Your task to perform on an android device: Search for the best rated desk chair on Article.com Image 0: 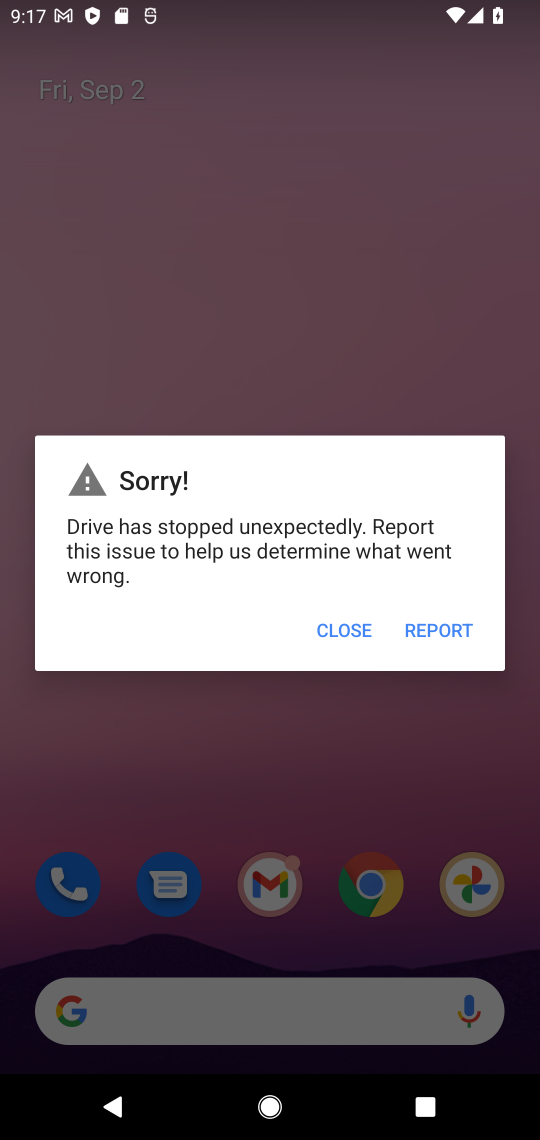
Step 0: press home button
Your task to perform on an android device: Search for the best rated desk chair on Article.com Image 1: 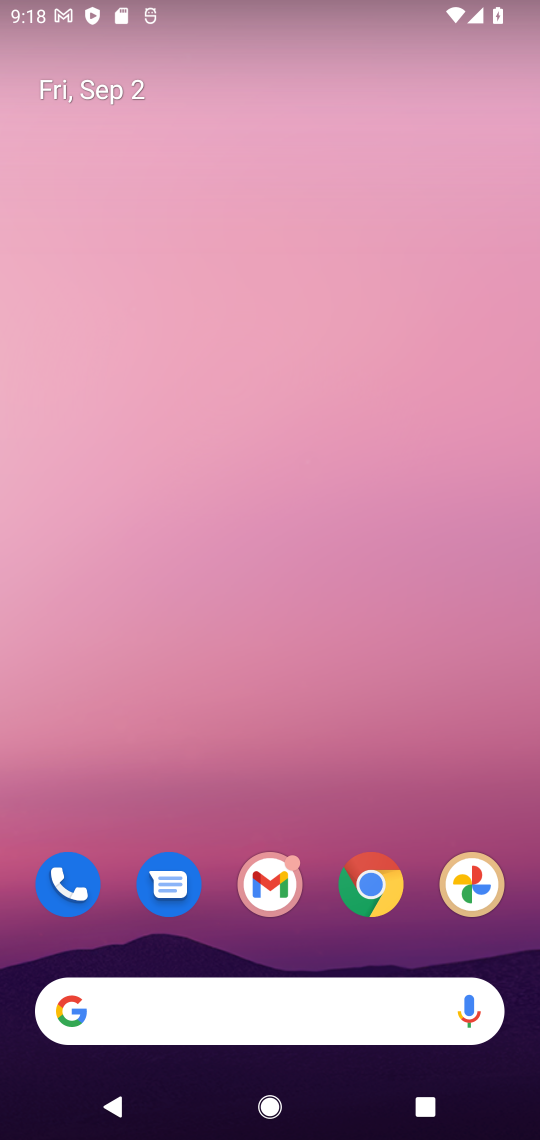
Step 1: click (382, 887)
Your task to perform on an android device: Search for the best rated desk chair on Article.com Image 2: 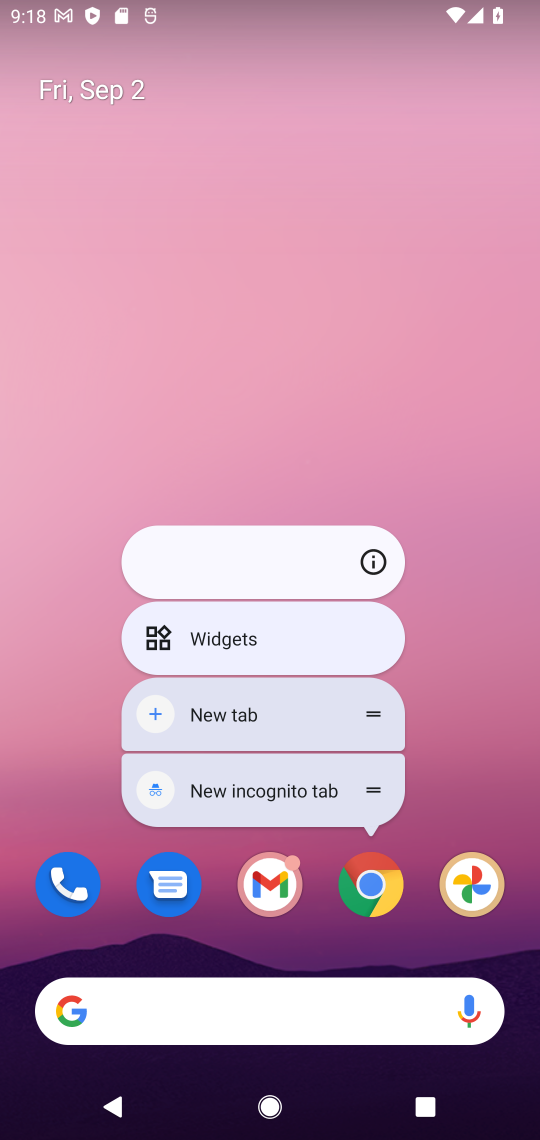
Step 2: click (366, 893)
Your task to perform on an android device: Search for the best rated desk chair on Article.com Image 3: 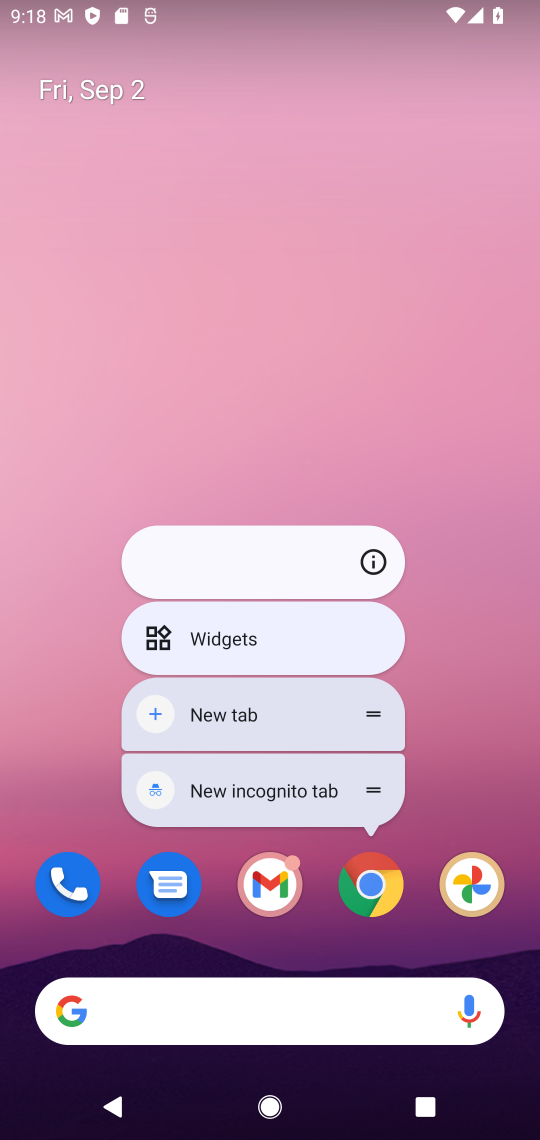
Step 3: click (366, 893)
Your task to perform on an android device: Search for the best rated desk chair on Article.com Image 4: 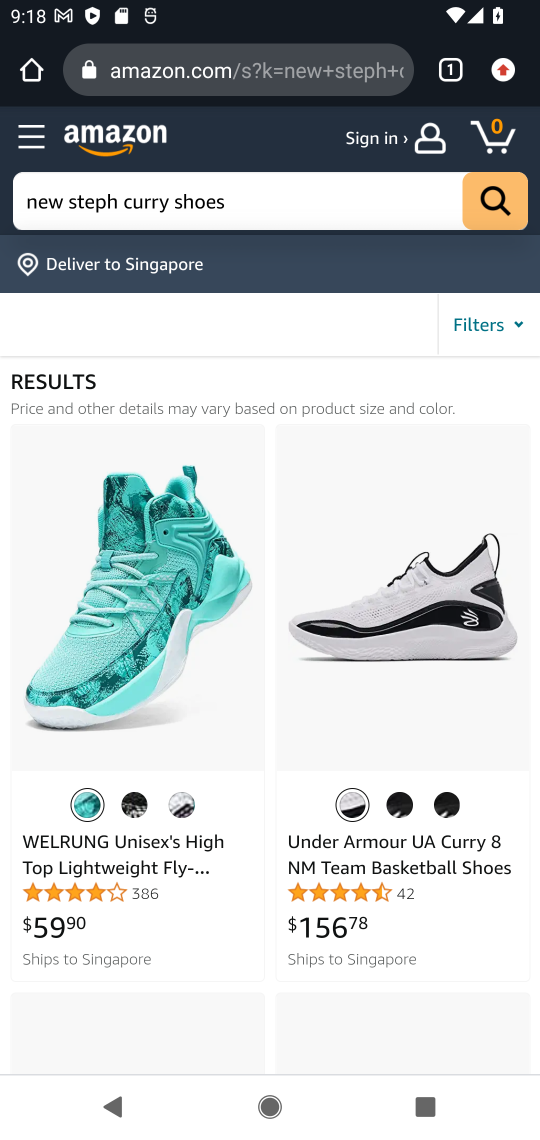
Step 4: click (260, 58)
Your task to perform on an android device: Search for the best rated desk chair on Article.com Image 5: 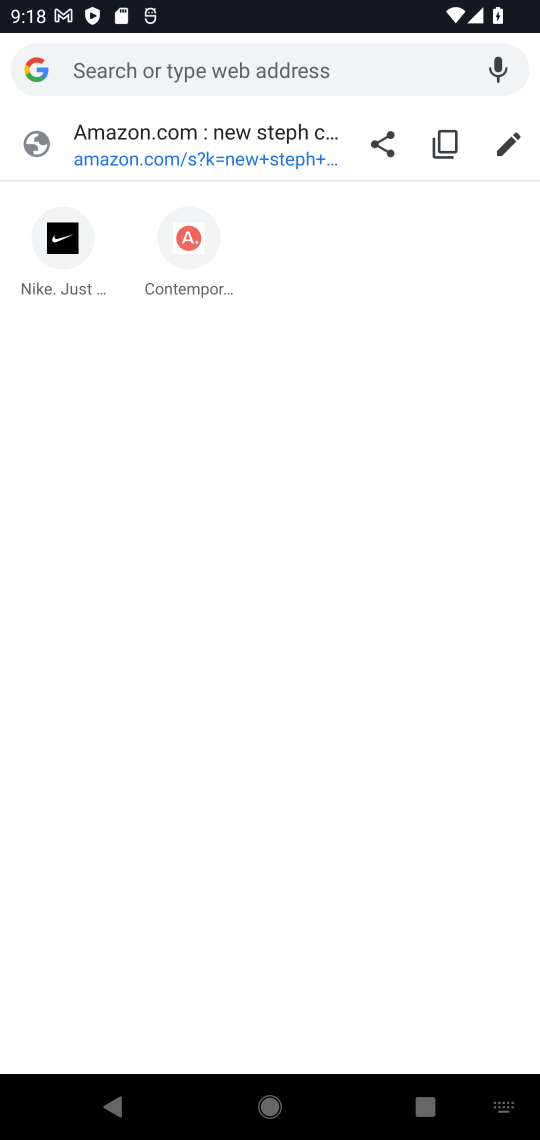
Step 5: type "article.com"
Your task to perform on an android device: Search for the best rated desk chair on Article.com Image 6: 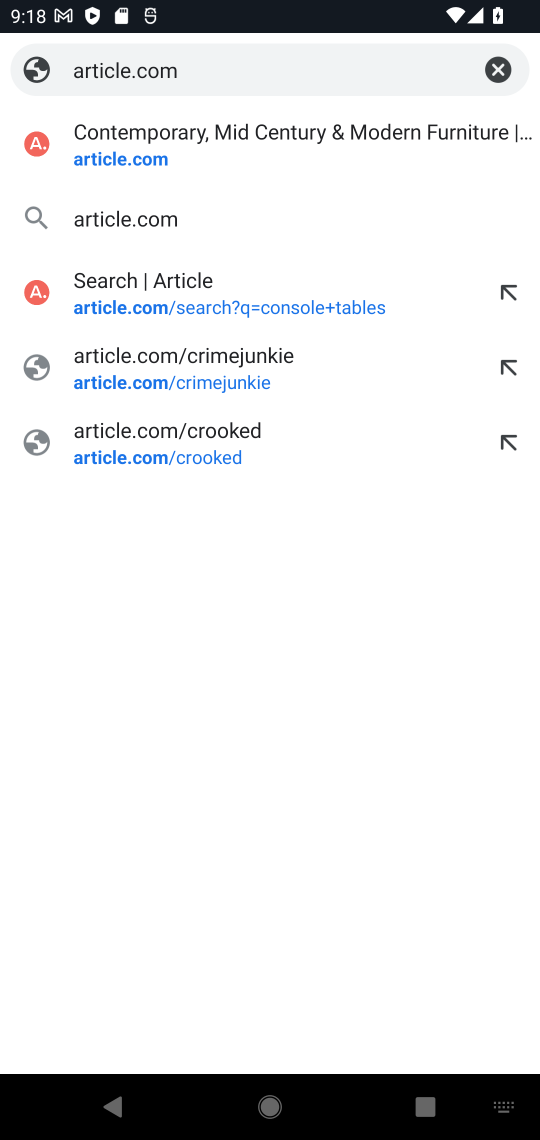
Step 6: click (123, 216)
Your task to perform on an android device: Search for the best rated desk chair on Article.com Image 7: 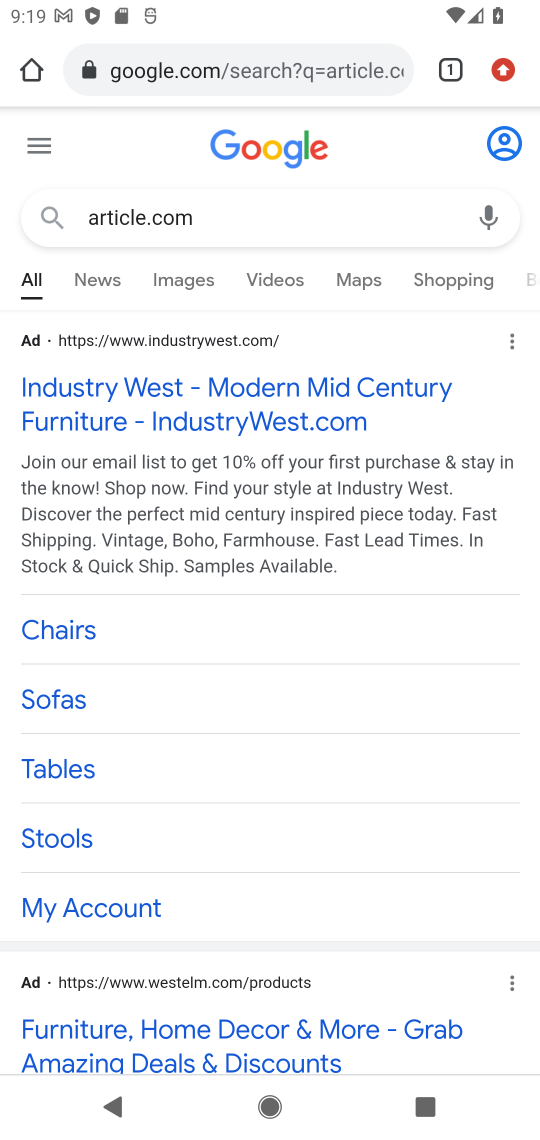
Step 7: drag from (260, 521) to (261, 333)
Your task to perform on an android device: Search for the best rated desk chair on Article.com Image 8: 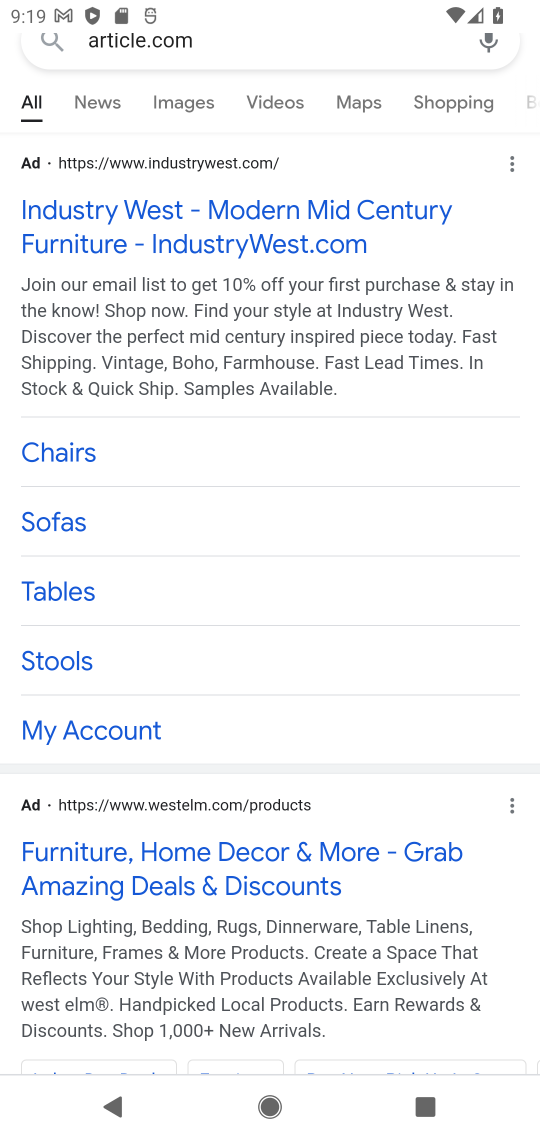
Step 8: drag from (354, 415) to (366, 239)
Your task to perform on an android device: Search for the best rated desk chair on Article.com Image 9: 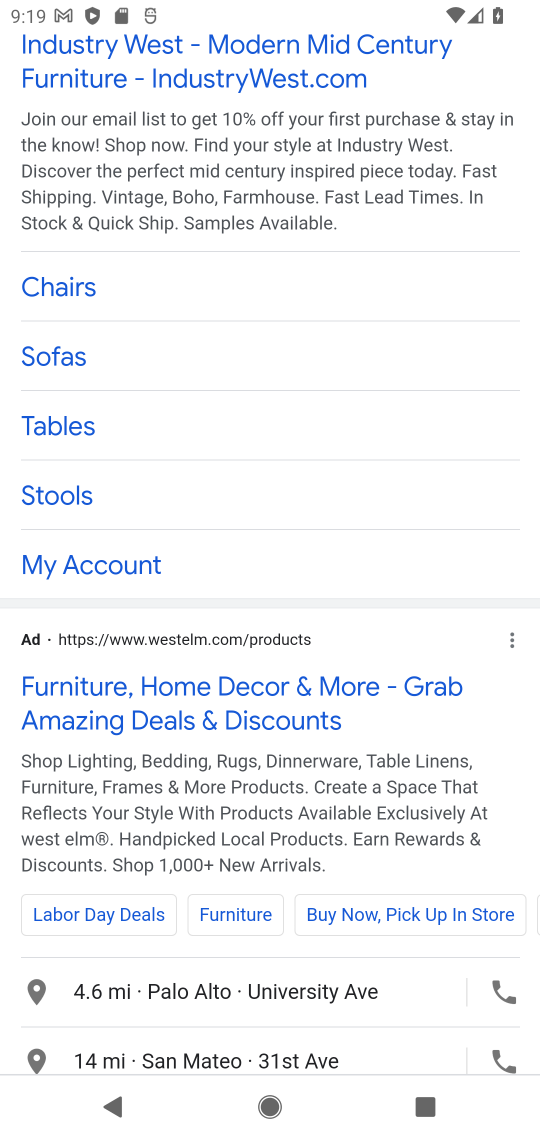
Step 9: drag from (380, 733) to (405, 229)
Your task to perform on an android device: Search for the best rated desk chair on Article.com Image 10: 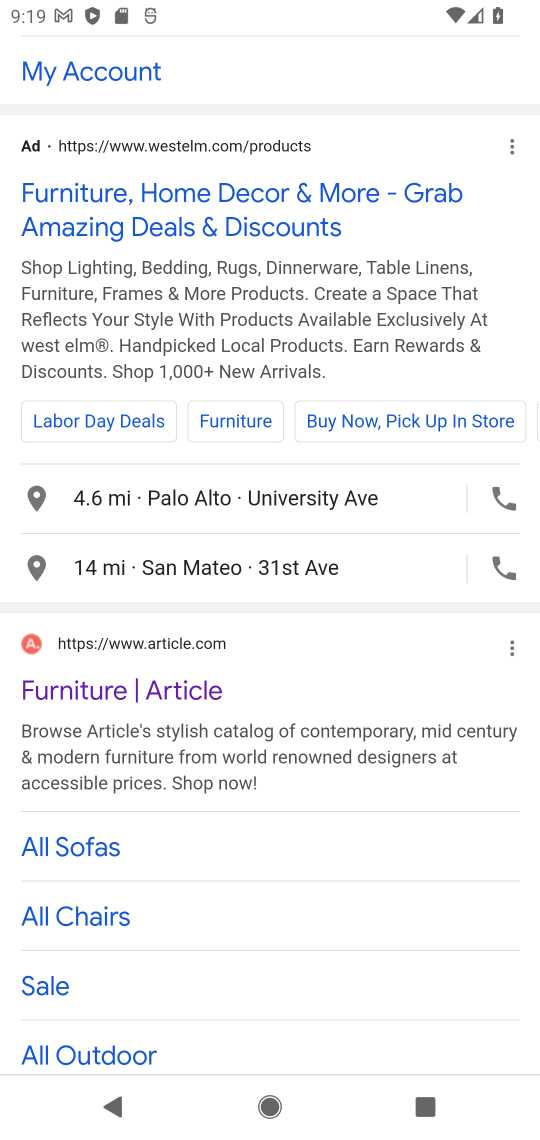
Step 10: click (171, 692)
Your task to perform on an android device: Search for the best rated desk chair on Article.com Image 11: 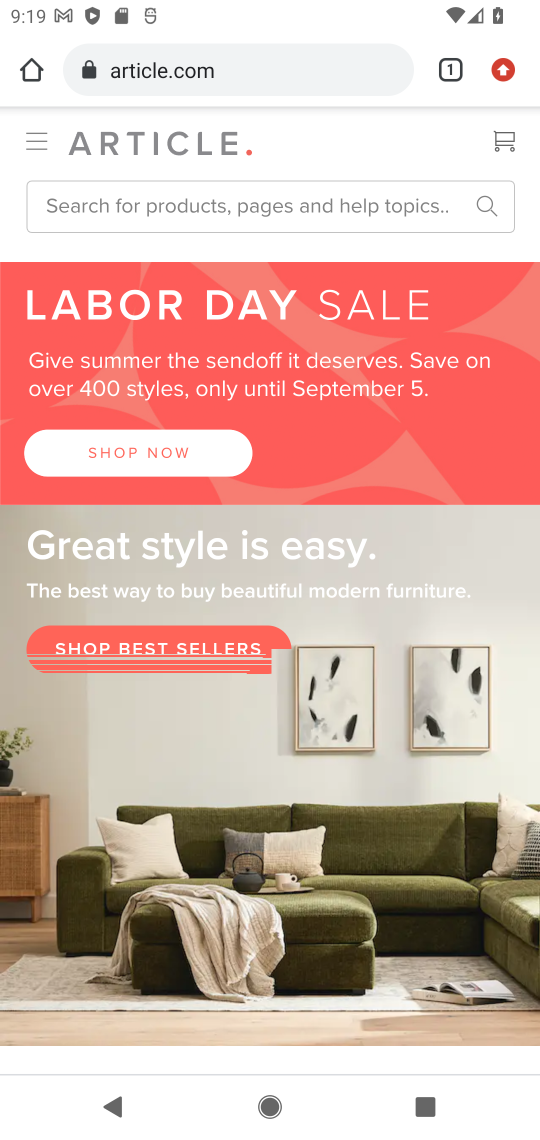
Step 11: click (182, 213)
Your task to perform on an android device: Search for the best rated desk chair on Article.com Image 12: 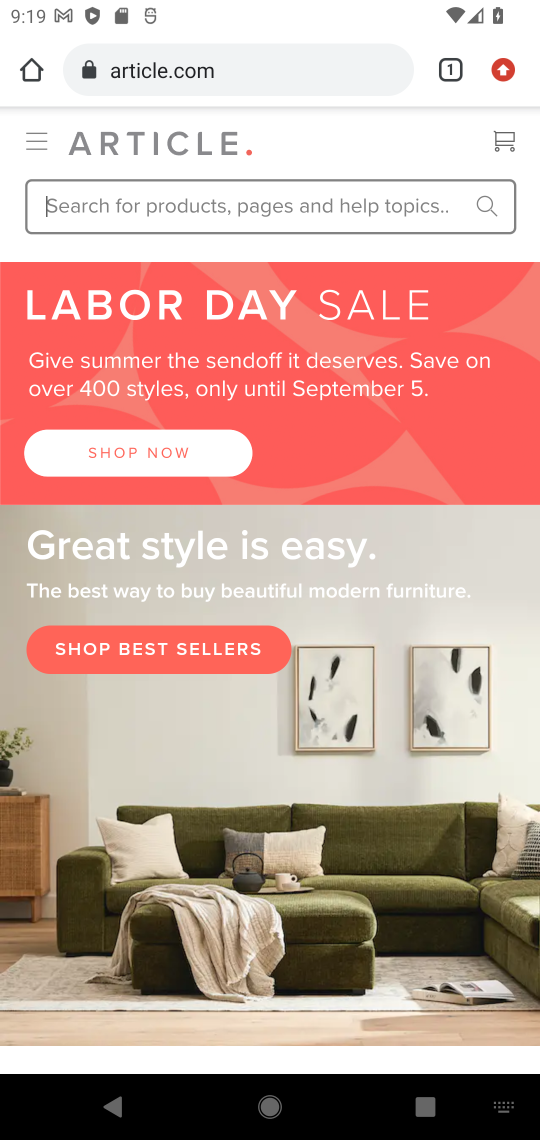
Step 12: type "best rated desk chair"
Your task to perform on an android device: Search for the best rated desk chair on Article.com Image 13: 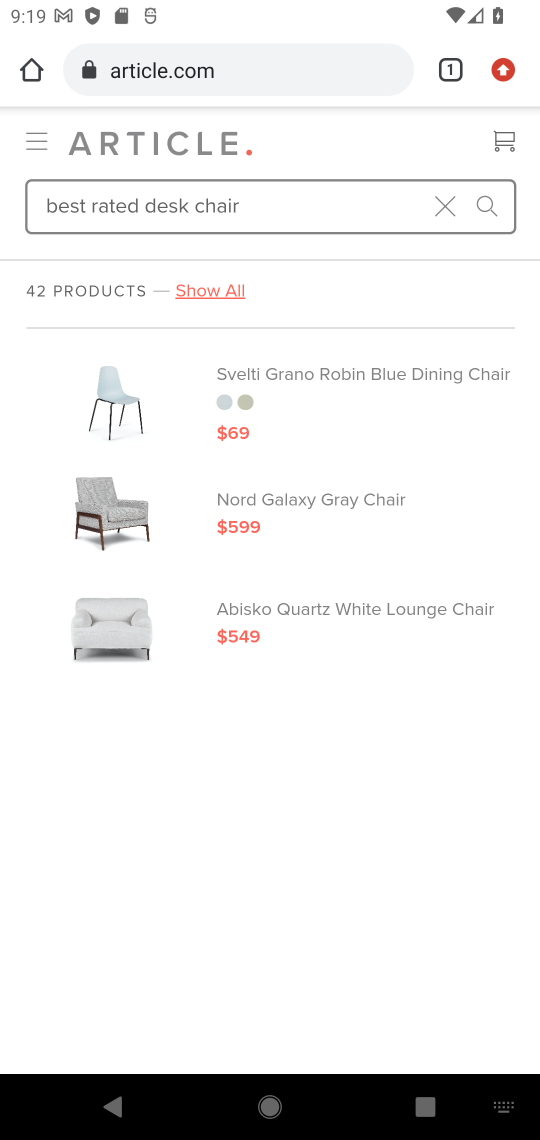
Step 13: click (202, 297)
Your task to perform on an android device: Search for the best rated desk chair on Article.com Image 14: 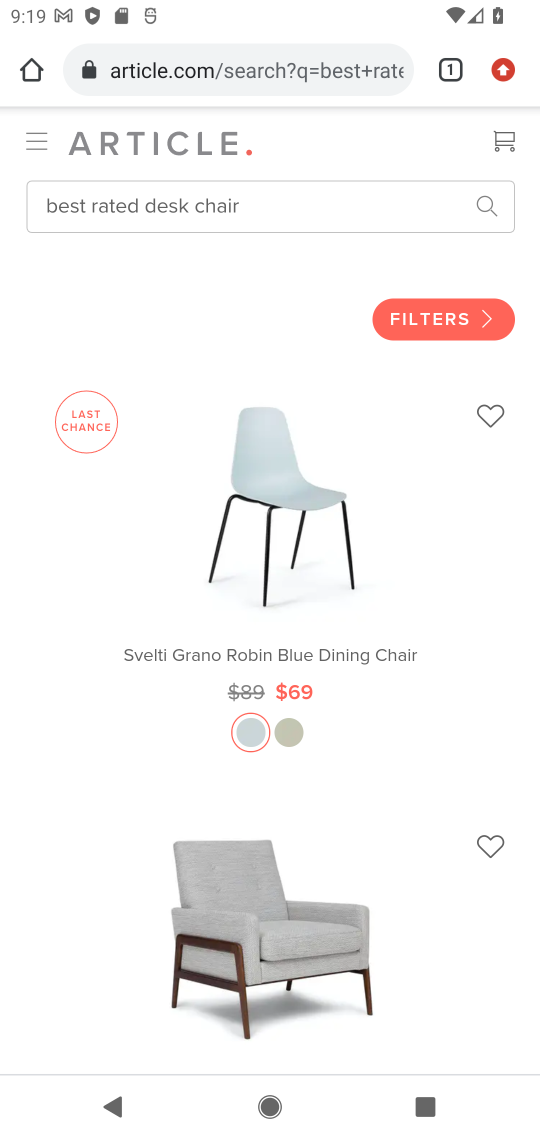
Step 14: task complete